Your task to perform on an android device: toggle wifi Image 0: 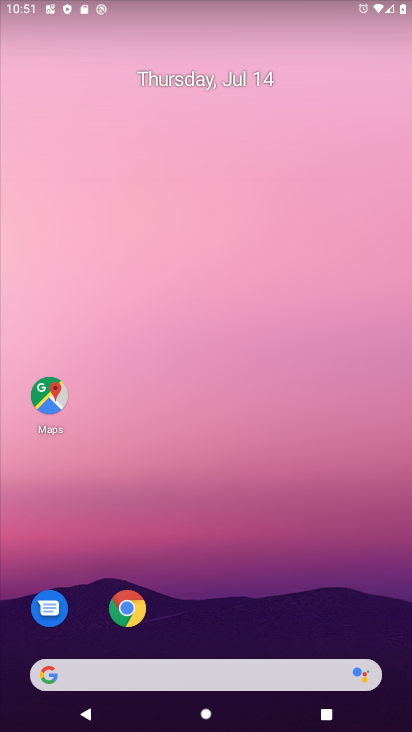
Step 0: drag from (253, 712) to (253, 219)
Your task to perform on an android device: toggle wifi Image 1: 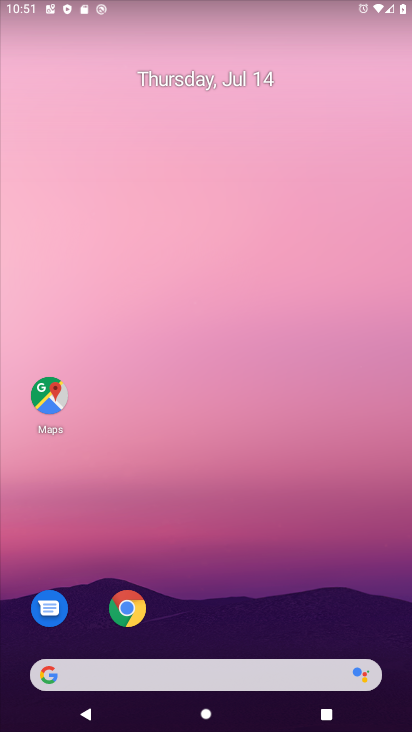
Step 1: drag from (248, 632) to (251, 205)
Your task to perform on an android device: toggle wifi Image 2: 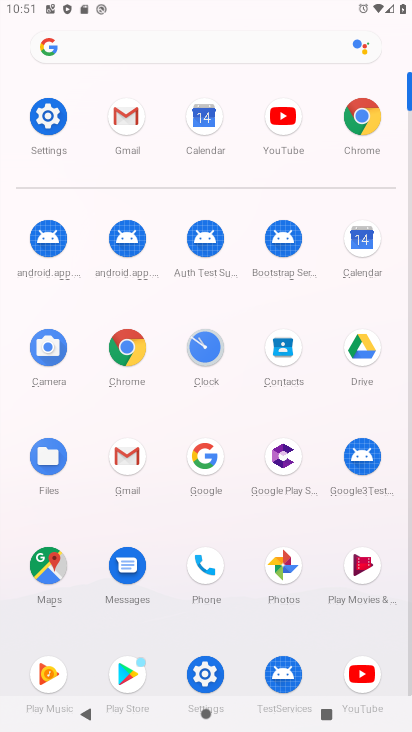
Step 2: click (46, 112)
Your task to perform on an android device: toggle wifi Image 3: 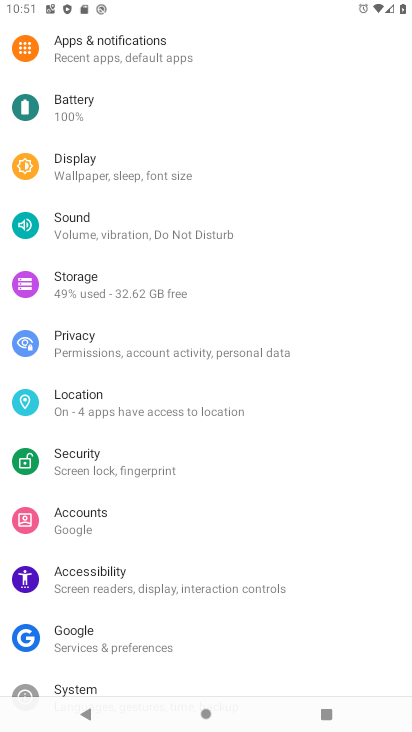
Step 3: drag from (101, 79) to (136, 409)
Your task to perform on an android device: toggle wifi Image 4: 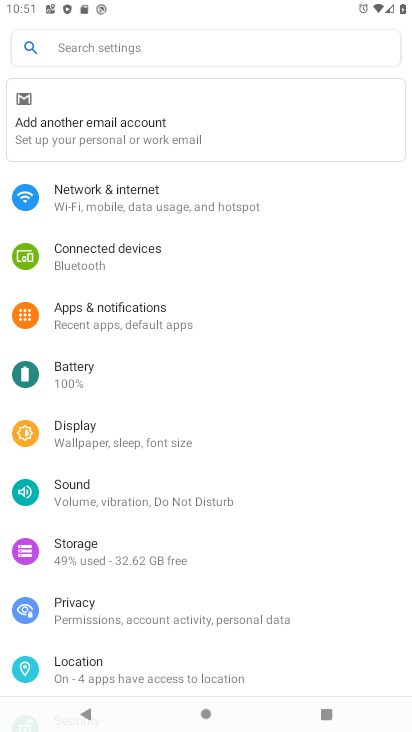
Step 4: click (100, 193)
Your task to perform on an android device: toggle wifi Image 5: 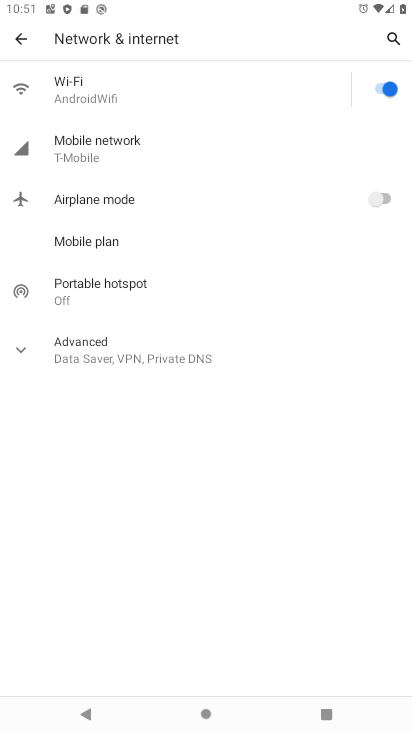
Step 5: click (386, 86)
Your task to perform on an android device: toggle wifi Image 6: 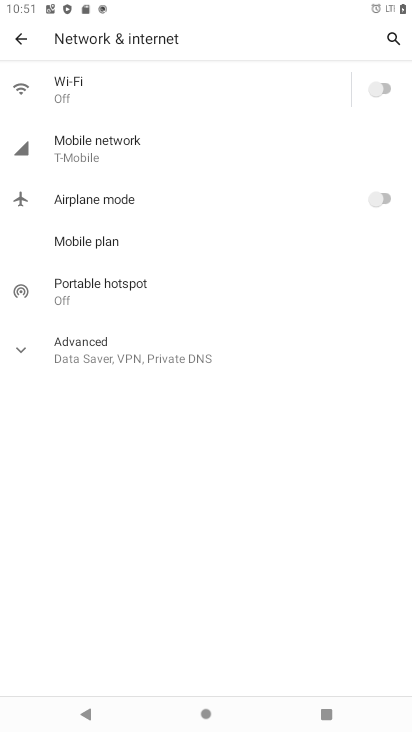
Step 6: task complete